Your task to perform on an android device: turn on notifications settings in the gmail app Image 0: 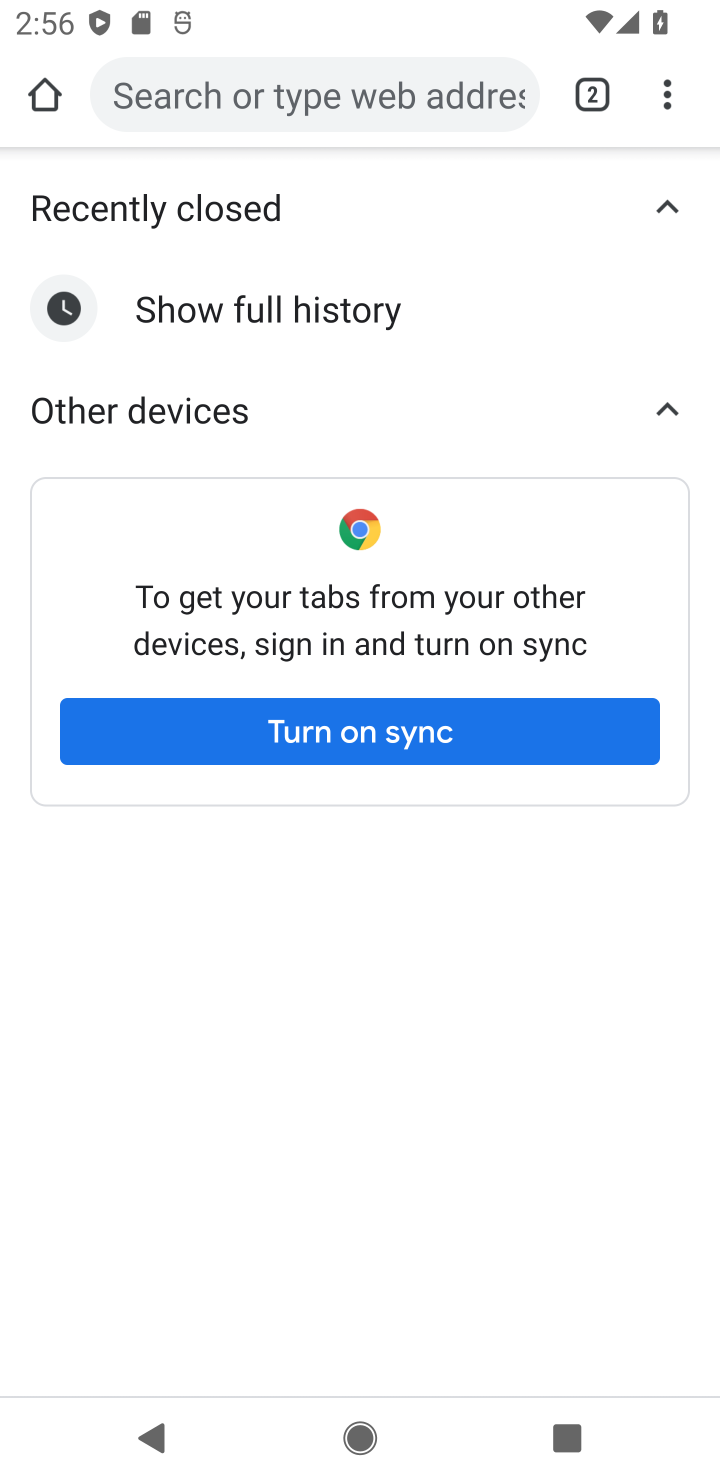
Step 0: press home button
Your task to perform on an android device: turn on notifications settings in the gmail app Image 1: 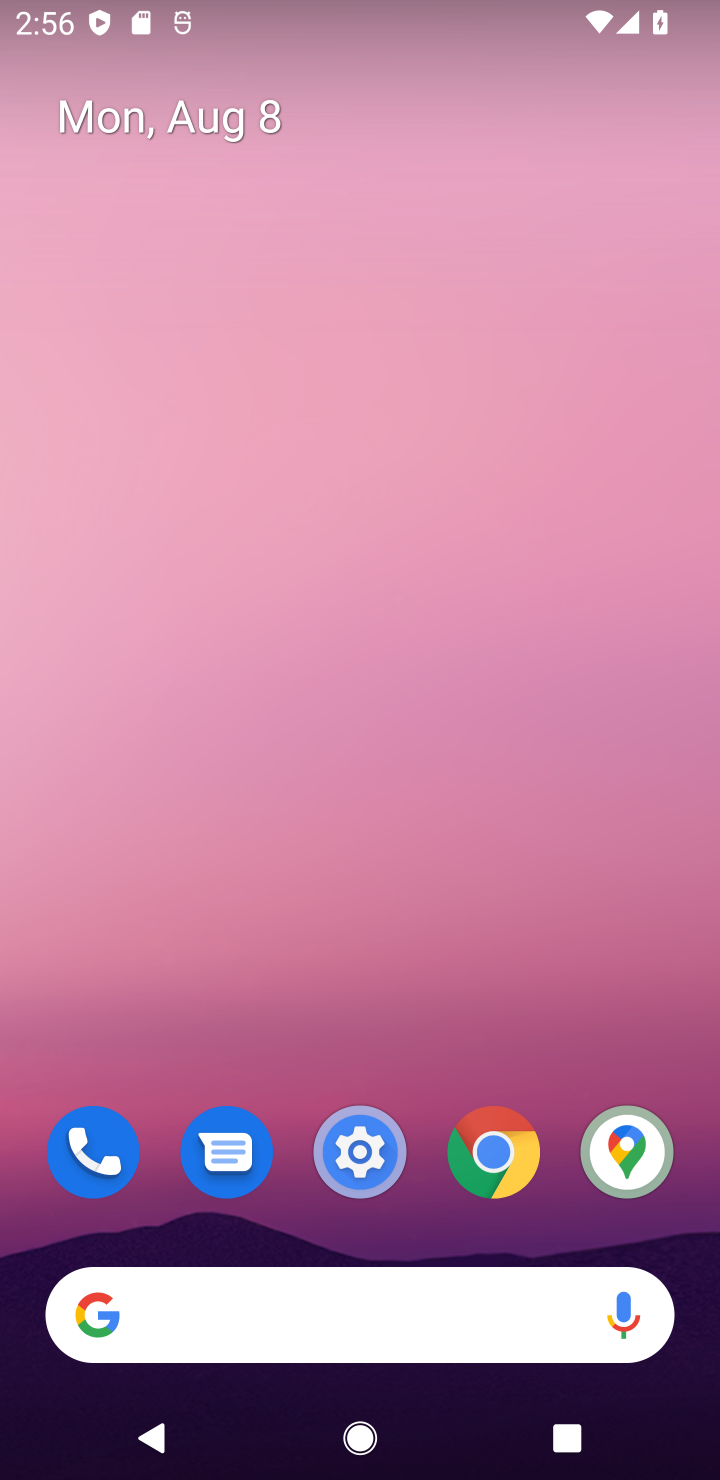
Step 1: drag from (346, 1007) to (335, 498)
Your task to perform on an android device: turn on notifications settings in the gmail app Image 2: 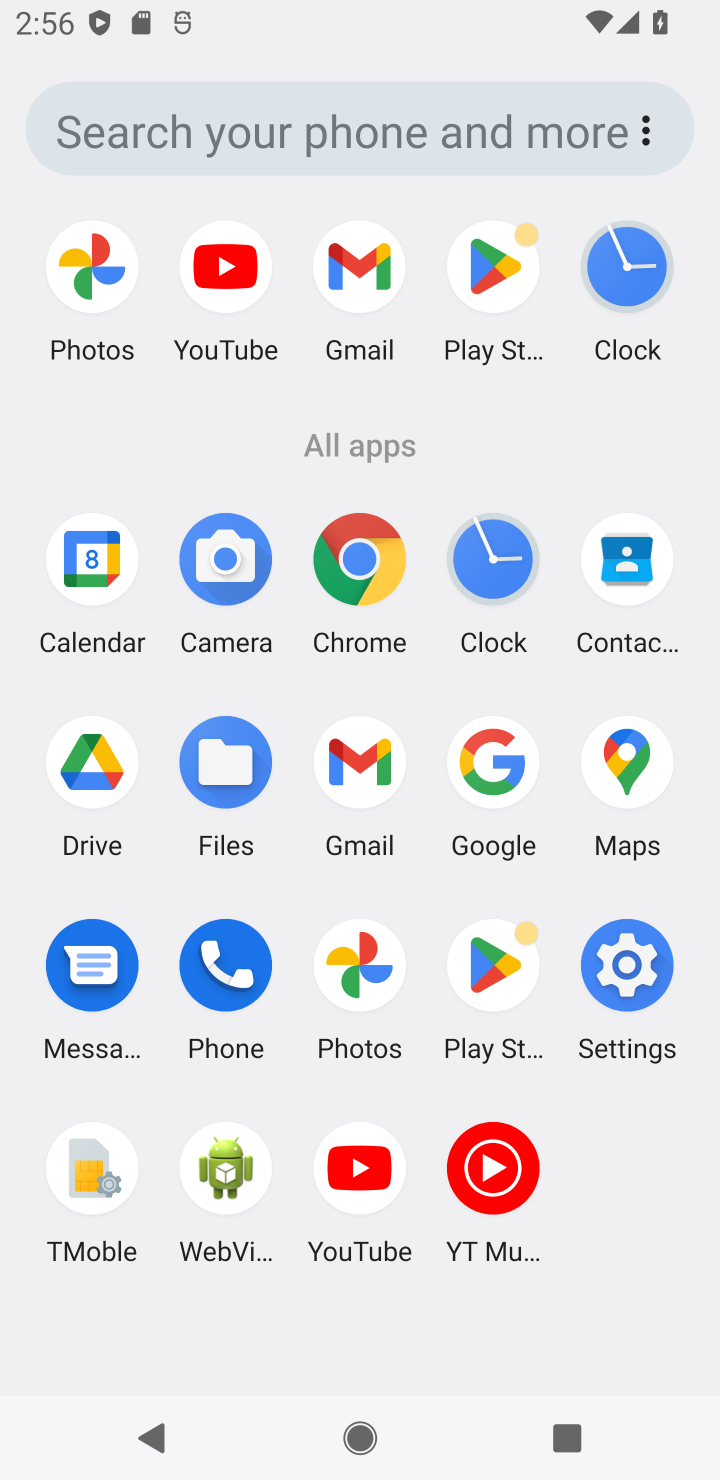
Step 2: click (360, 778)
Your task to perform on an android device: turn on notifications settings in the gmail app Image 3: 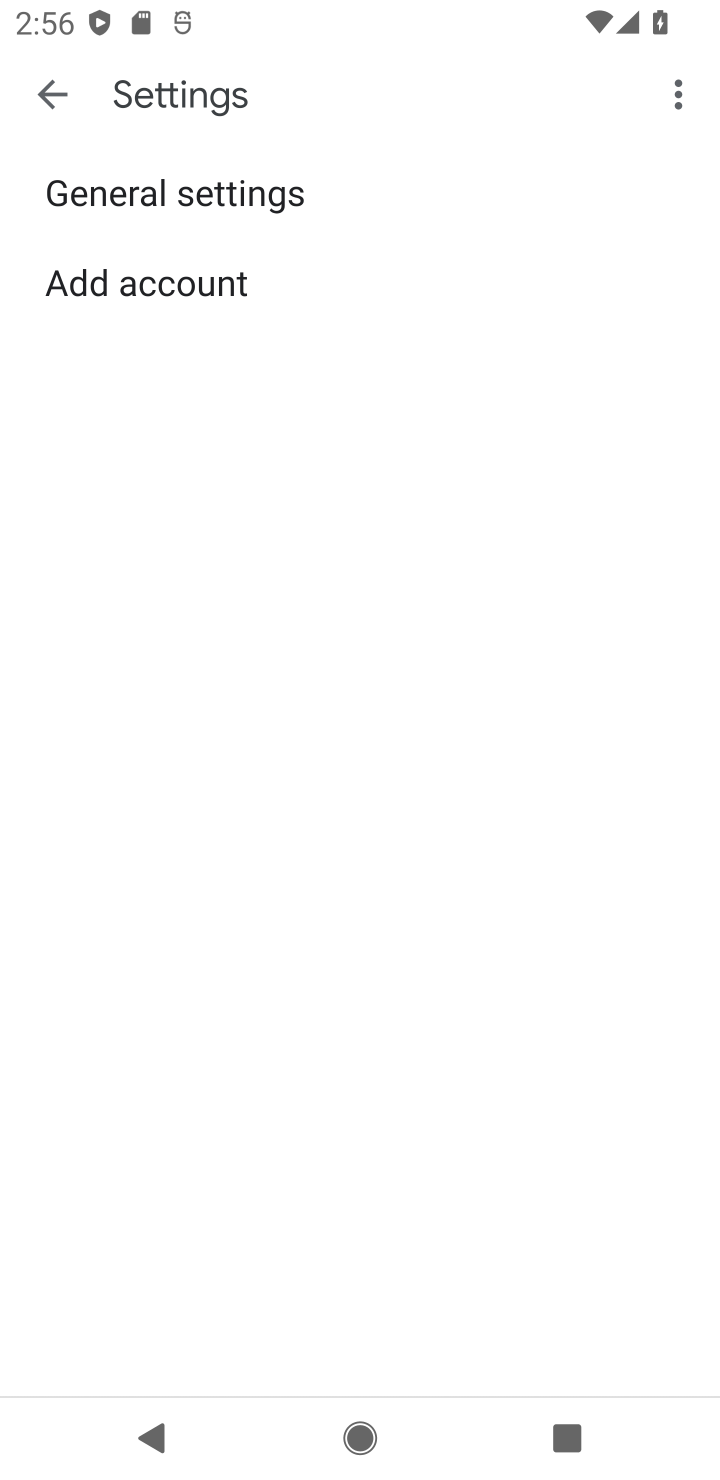
Step 3: click (199, 184)
Your task to perform on an android device: turn on notifications settings in the gmail app Image 4: 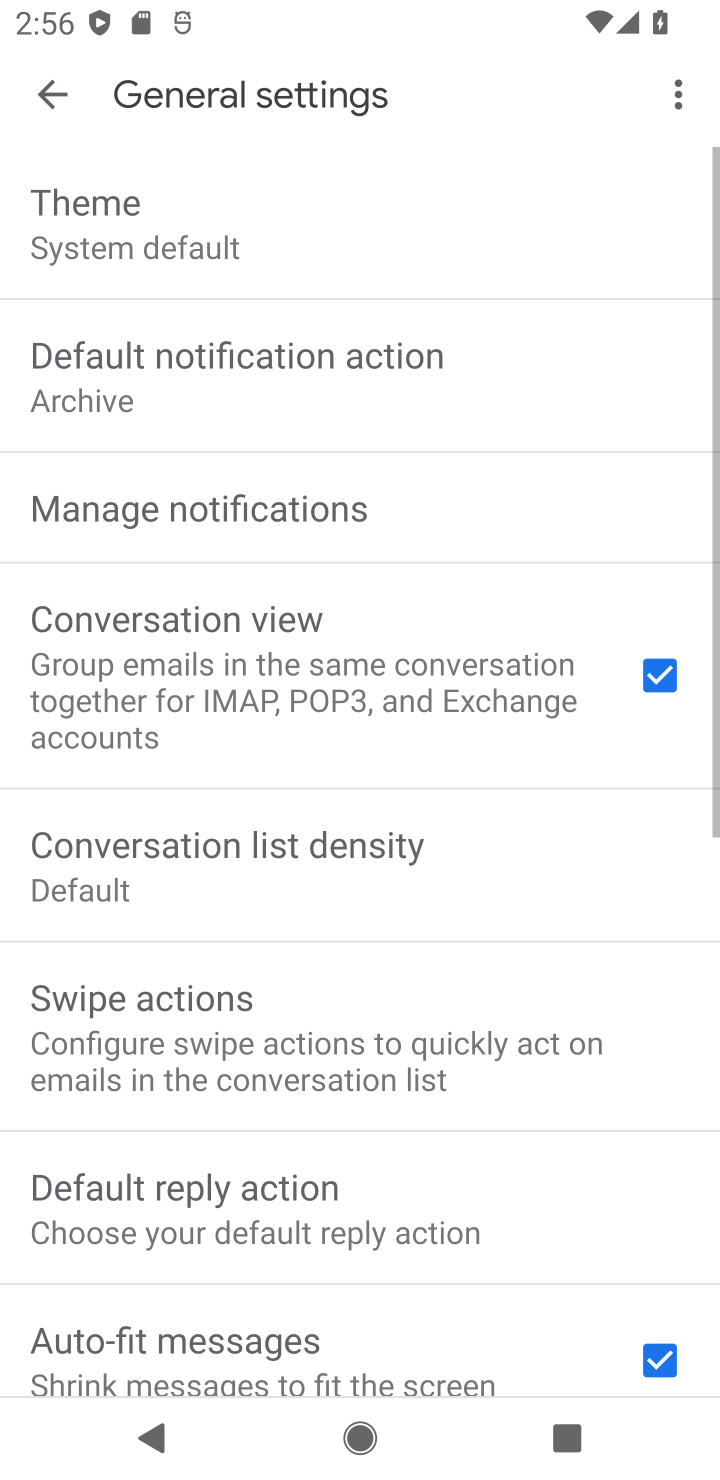
Step 4: click (259, 508)
Your task to perform on an android device: turn on notifications settings in the gmail app Image 5: 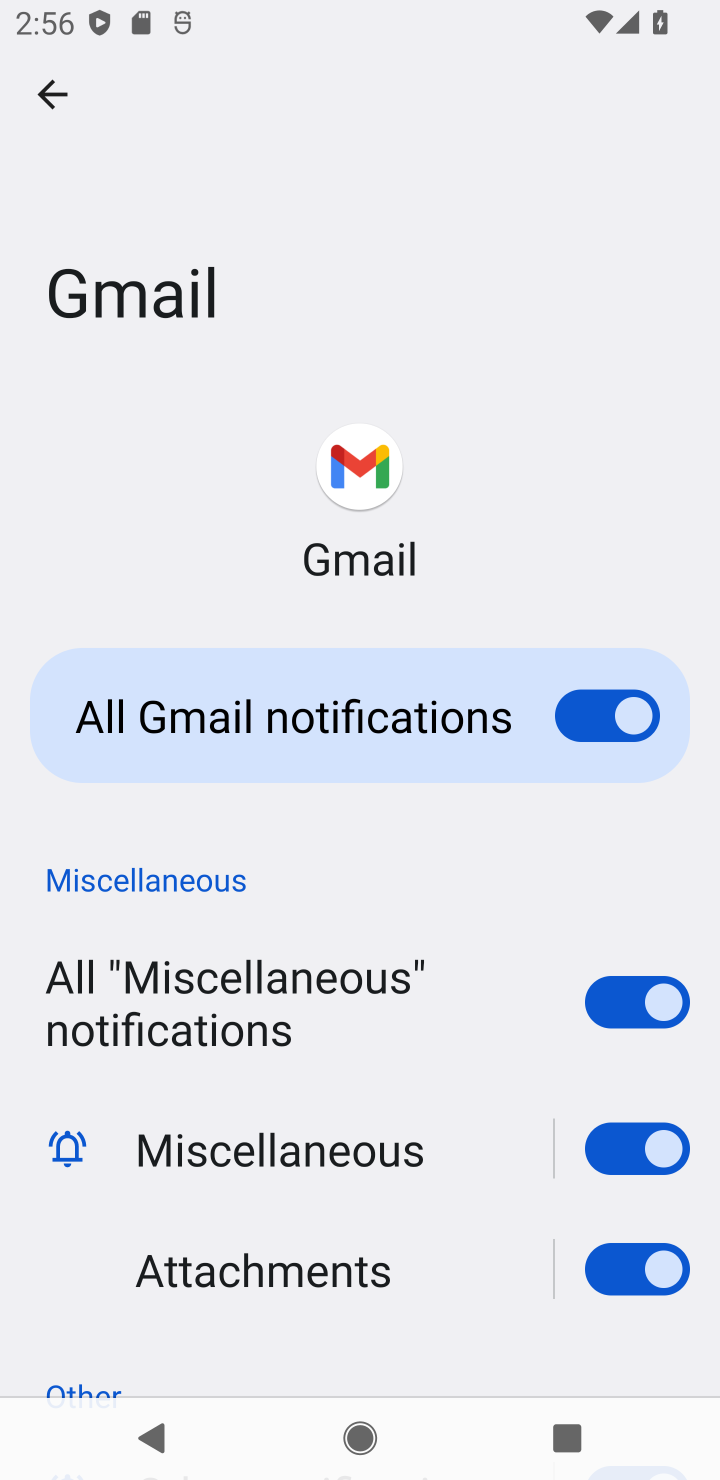
Step 5: task complete